Your task to perform on an android device: toggle notifications settings in the gmail app Image 0: 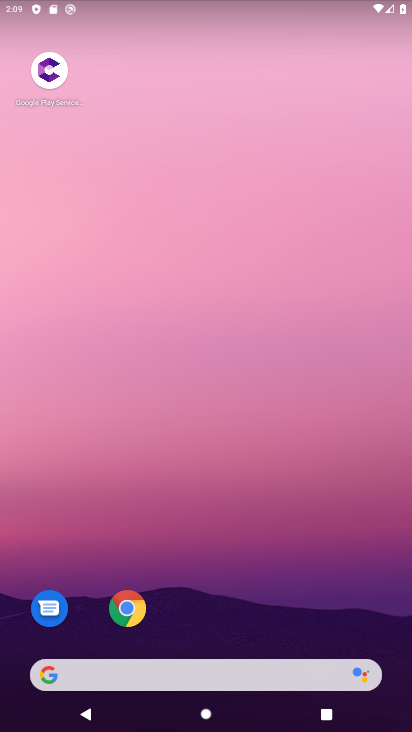
Step 0: drag from (249, 640) to (248, 233)
Your task to perform on an android device: toggle notifications settings in the gmail app Image 1: 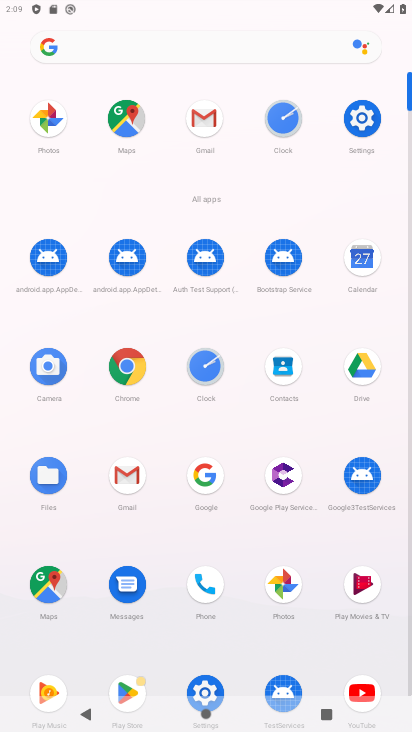
Step 1: click (121, 473)
Your task to perform on an android device: toggle notifications settings in the gmail app Image 2: 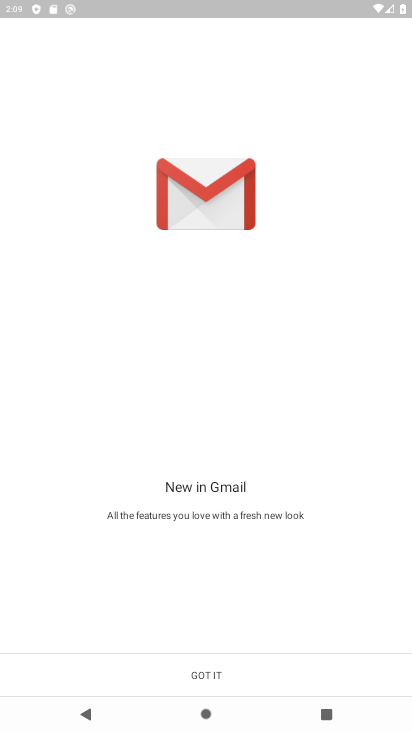
Step 2: click (214, 671)
Your task to perform on an android device: toggle notifications settings in the gmail app Image 3: 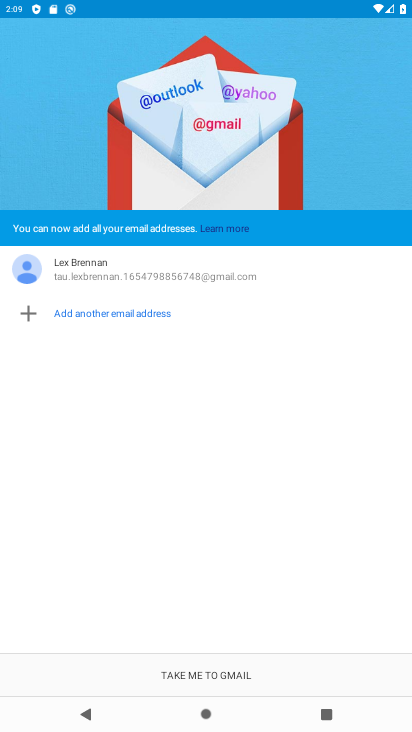
Step 3: click (214, 671)
Your task to perform on an android device: toggle notifications settings in the gmail app Image 4: 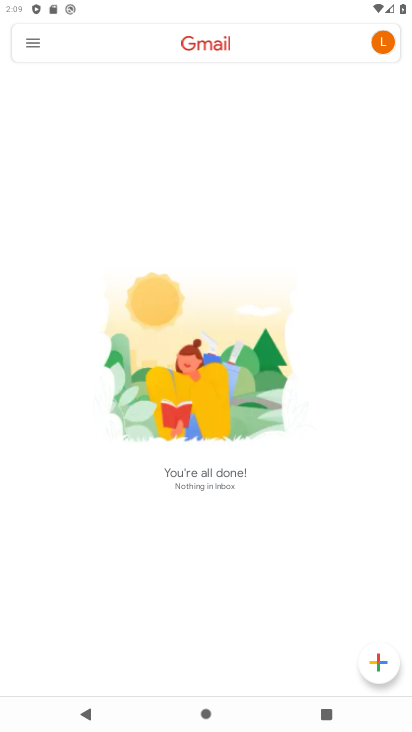
Step 4: task complete